Your task to perform on an android device: visit the assistant section in the google photos Image 0: 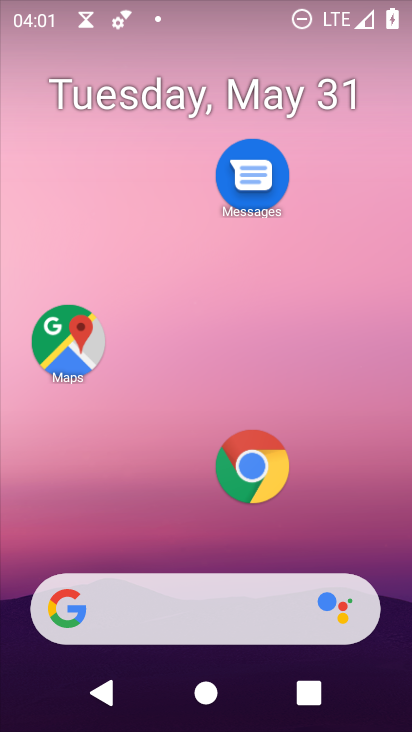
Step 0: drag from (131, 590) to (262, 111)
Your task to perform on an android device: visit the assistant section in the google photos Image 1: 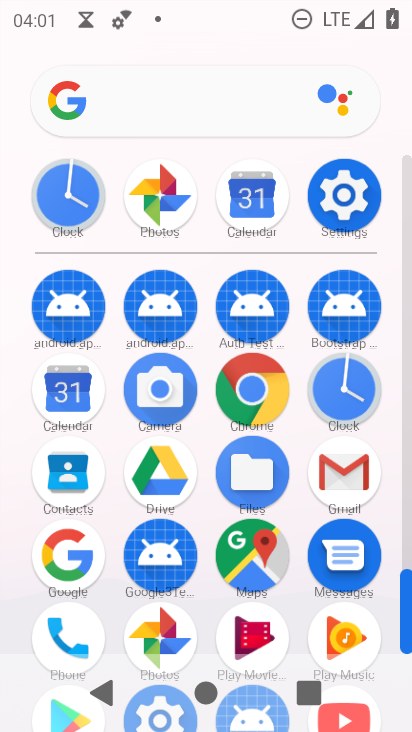
Step 1: click (163, 639)
Your task to perform on an android device: visit the assistant section in the google photos Image 2: 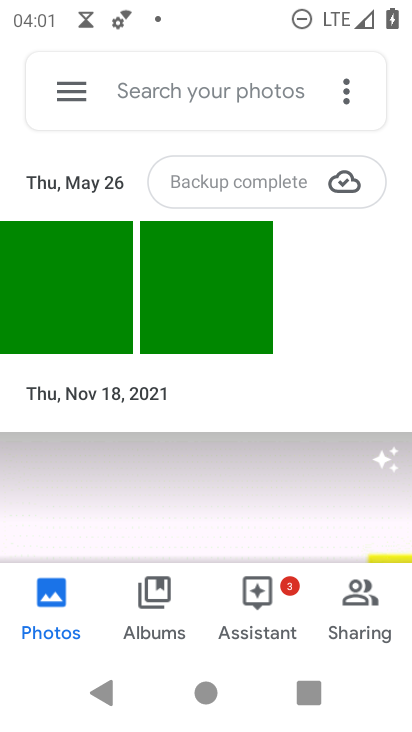
Step 2: click (259, 613)
Your task to perform on an android device: visit the assistant section in the google photos Image 3: 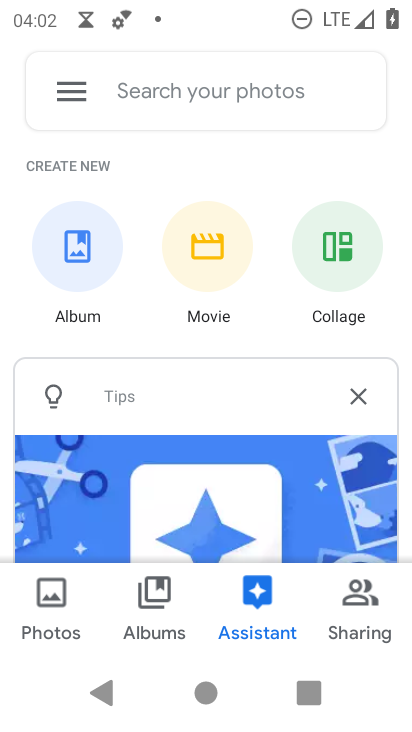
Step 3: task complete